Your task to perform on an android device: turn notification dots off Image 0: 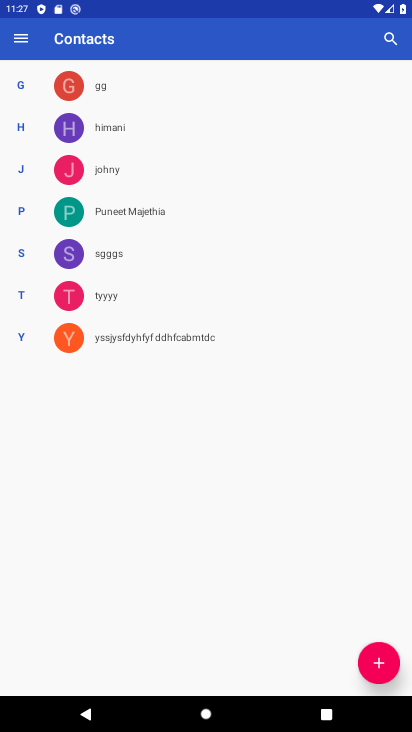
Step 0: press home button
Your task to perform on an android device: turn notification dots off Image 1: 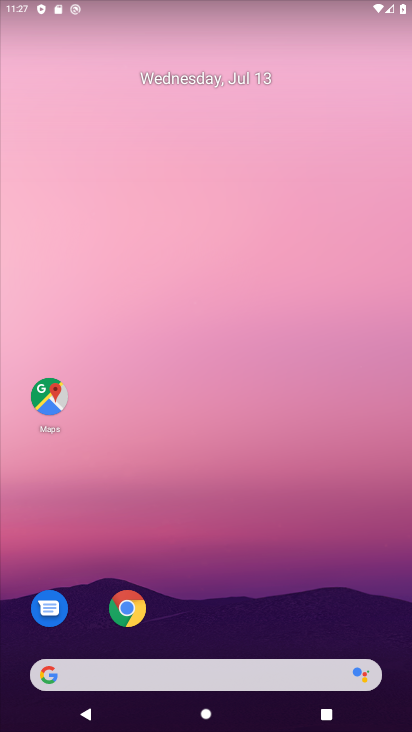
Step 1: drag from (98, 437) to (252, 86)
Your task to perform on an android device: turn notification dots off Image 2: 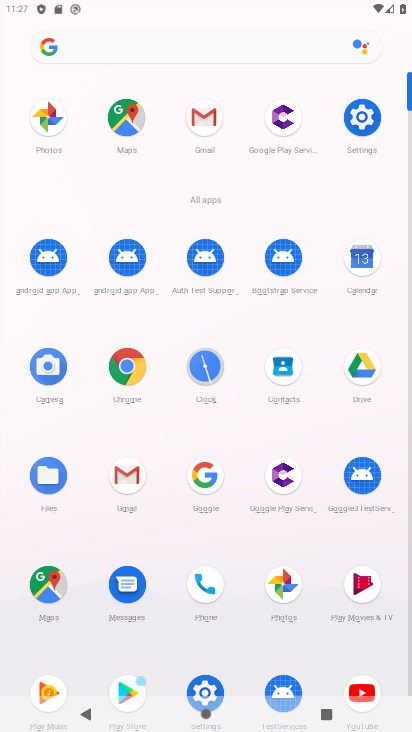
Step 2: click (211, 682)
Your task to perform on an android device: turn notification dots off Image 3: 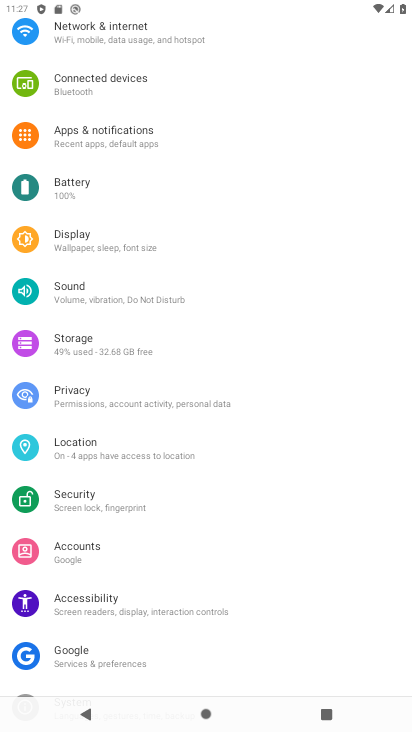
Step 3: click (141, 132)
Your task to perform on an android device: turn notification dots off Image 4: 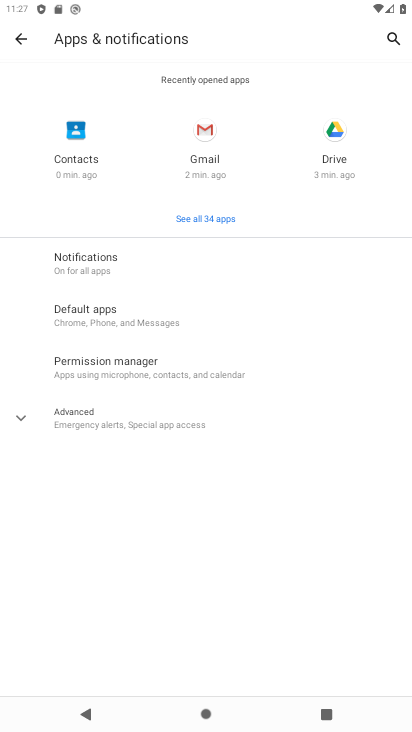
Step 4: click (157, 428)
Your task to perform on an android device: turn notification dots off Image 5: 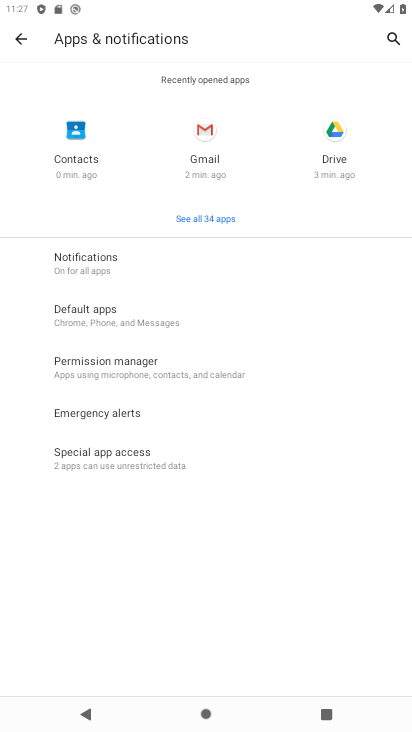
Step 5: click (127, 262)
Your task to perform on an android device: turn notification dots off Image 6: 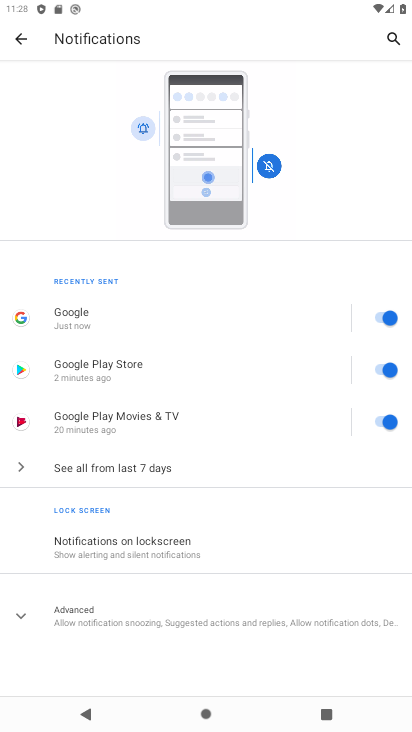
Step 6: click (207, 623)
Your task to perform on an android device: turn notification dots off Image 7: 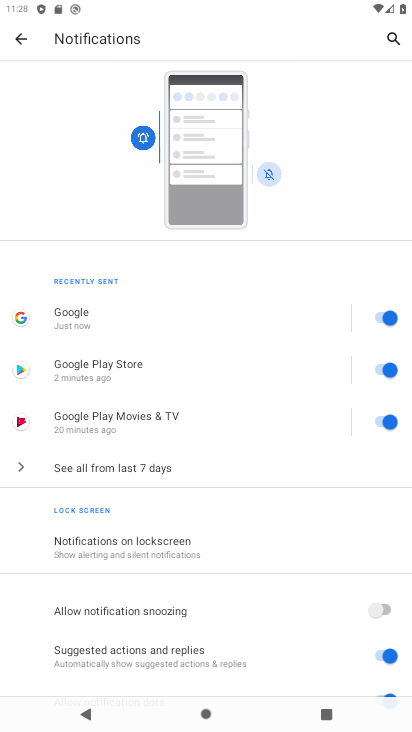
Step 7: drag from (157, 606) to (271, 245)
Your task to perform on an android device: turn notification dots off Image 8: 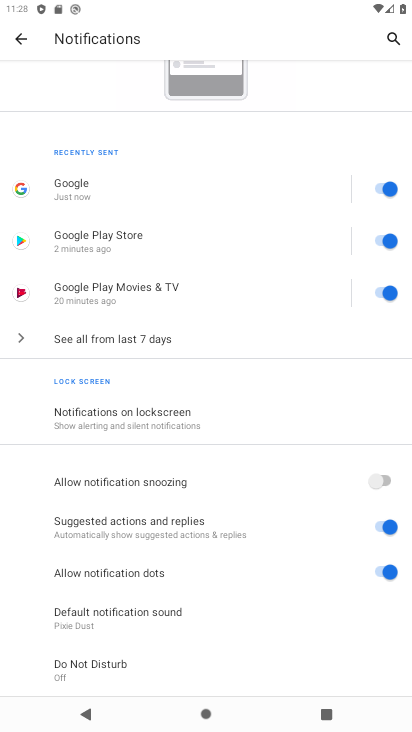
Step 8: click (126, 569)
Your task to perform on an android device: turn notification dots off Image 9: 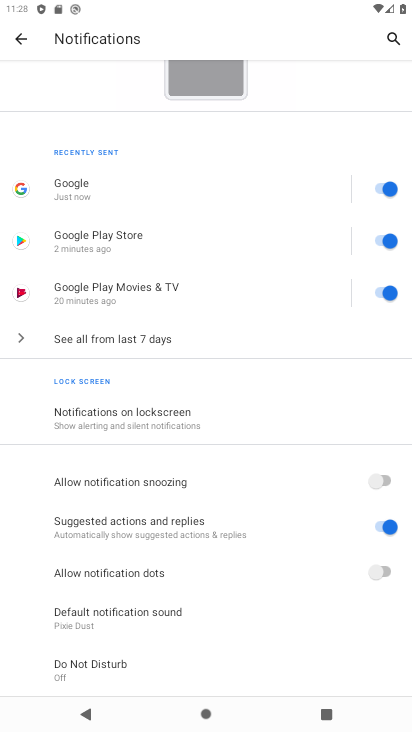
Step 9: task complete